Your task to perform on an android device: Open Chrome and go to settings Image 0: 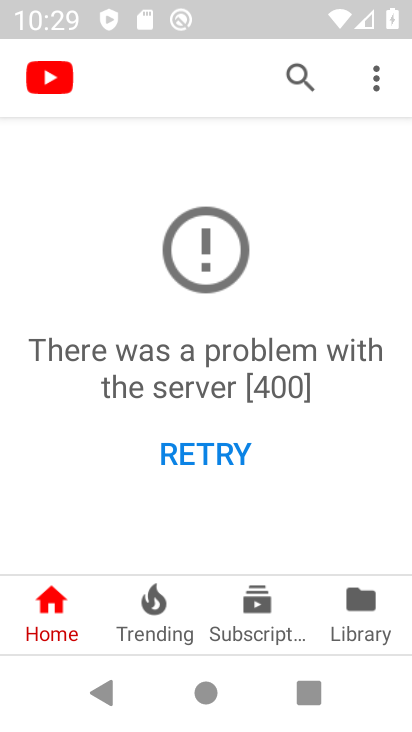
Step 0: press home button
Your task to perform on an android device: Open Chrome and go to settings Image 1: 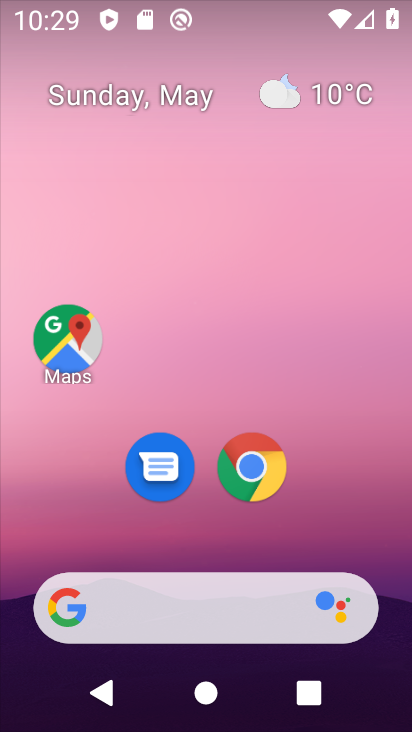
Step 1: click (238, 473)
Your task to perform on an android device: Open Chrome and go to settings Image 2: 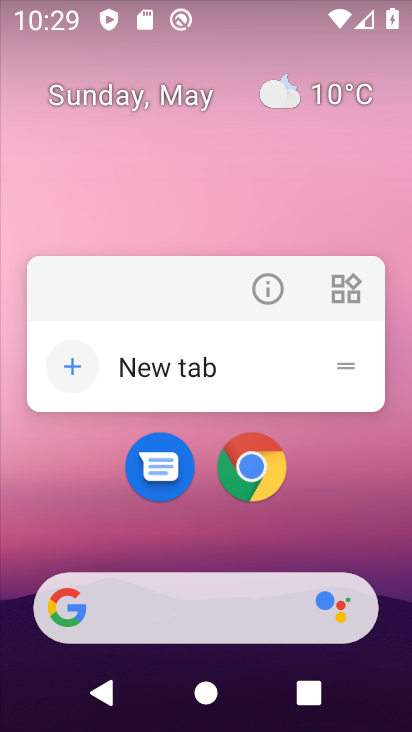
Step 2: click (253, 473)
Your task to perform on an android device: Open Chrome and go to settings Image 3: 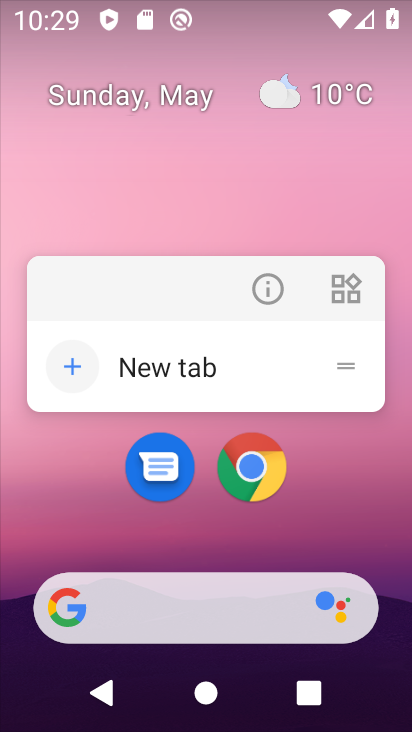
Step 3: click (257, 473)
Your task to perform on an android device: Open Chrome and go to settings Image 4: 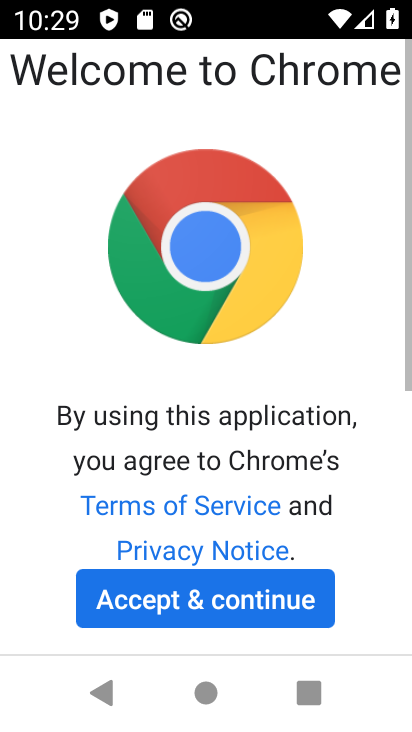
Step 4: click (246, 605)
Your task to perform on an android device: Open Chrome and go to settings Image 5: 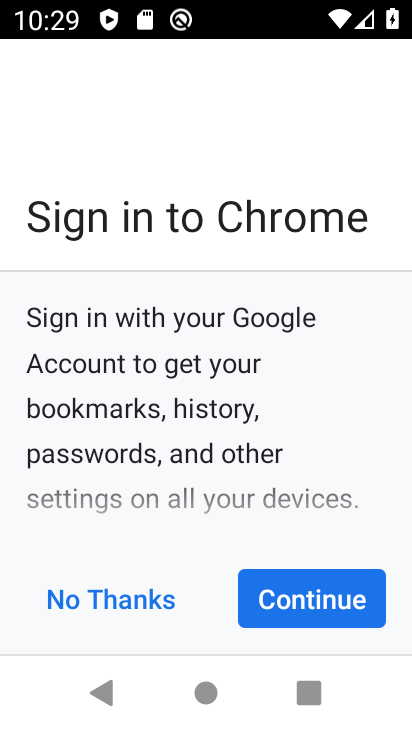
Step 5: click (308, 593)
Your task to perform on an android device: Open Chrome and go to settings Image 6: 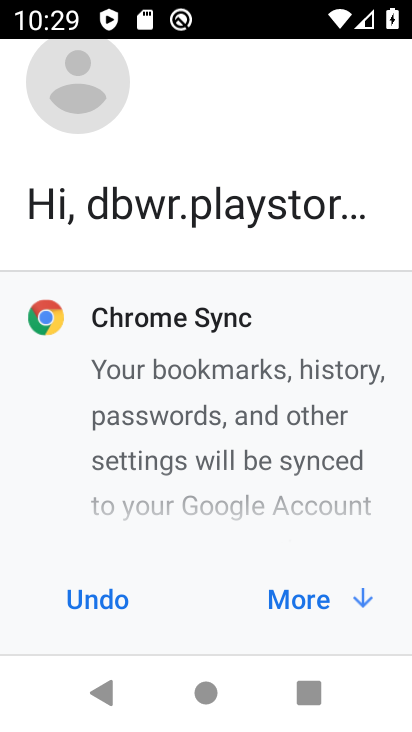
Step 6: click (308, 593)
Your task to perform on an android device: Open Chrome and go to settings Image 7: 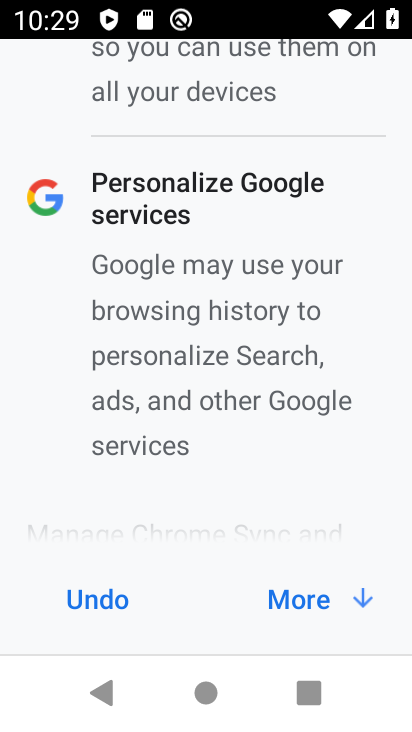
Step 7: click (308, 593)
Your task to perform on an android device: Open Chrome and go to settings Image 8: 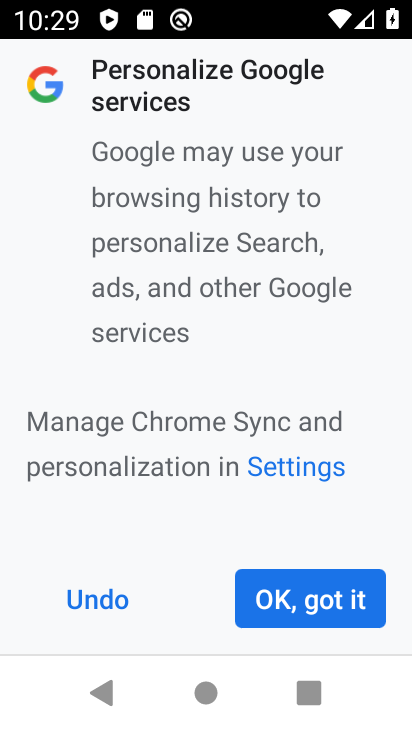
Step 8: click (308, 593)
Your task to perform on an android device: Open Chrome and go to settings Image 9: 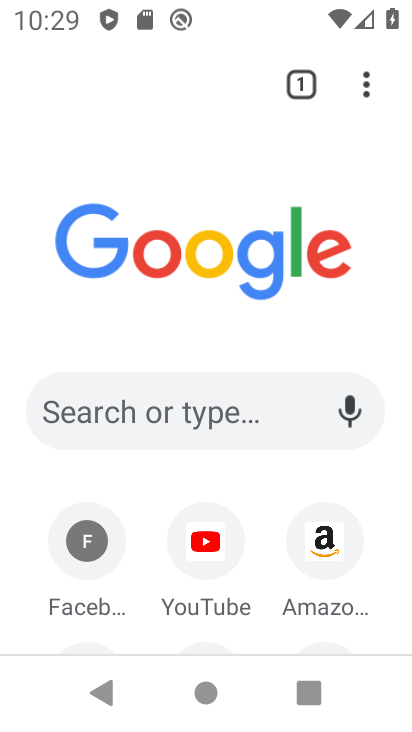
Step 9: click (367, 75)
Your task to perform on an android device: Open Chrome and go to settings Image 10: 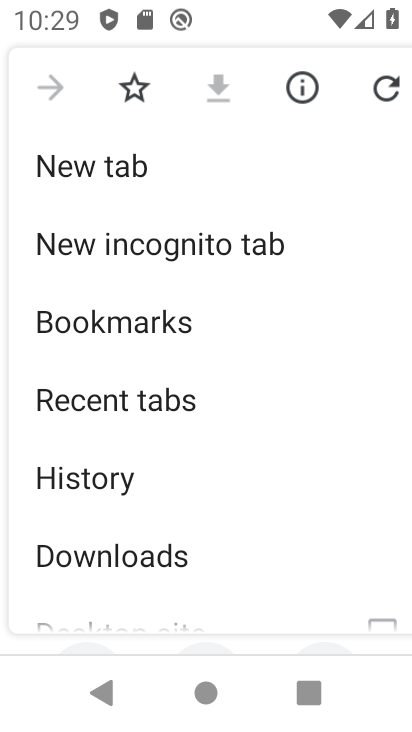
Step 10: drag from (111, 546) to (170, 11)
Your task to perform on an android device: Open Chrome and go to settings Image 11: 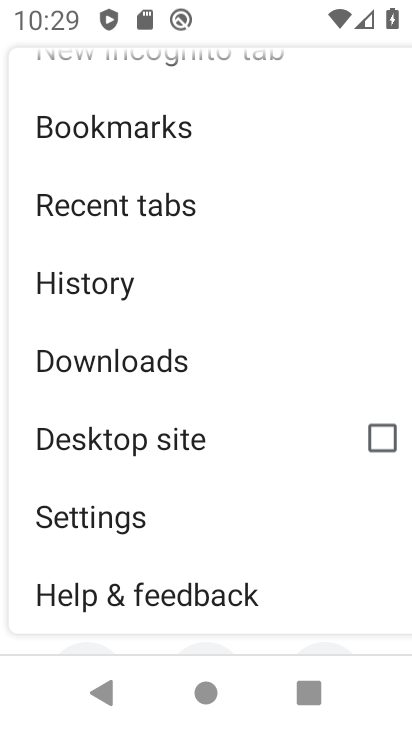
Step 11: click (107, 505)
Your task to perform on an android device: Open Chrome and go to settings Image 12: 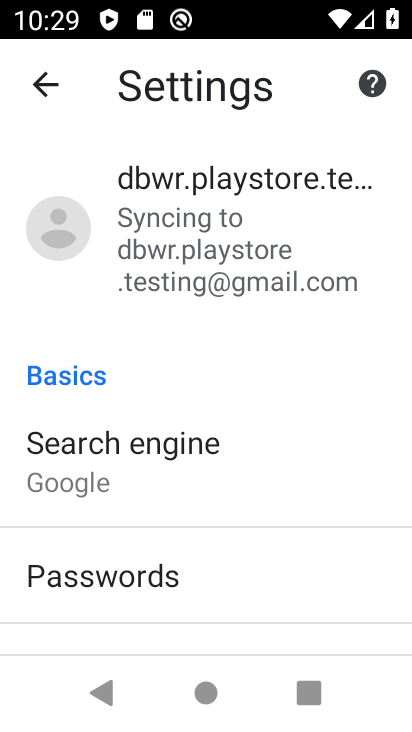
Step 12: task complete